Your task to perform on an android device: Open Google Maps and go to "Timeline" Image 0: 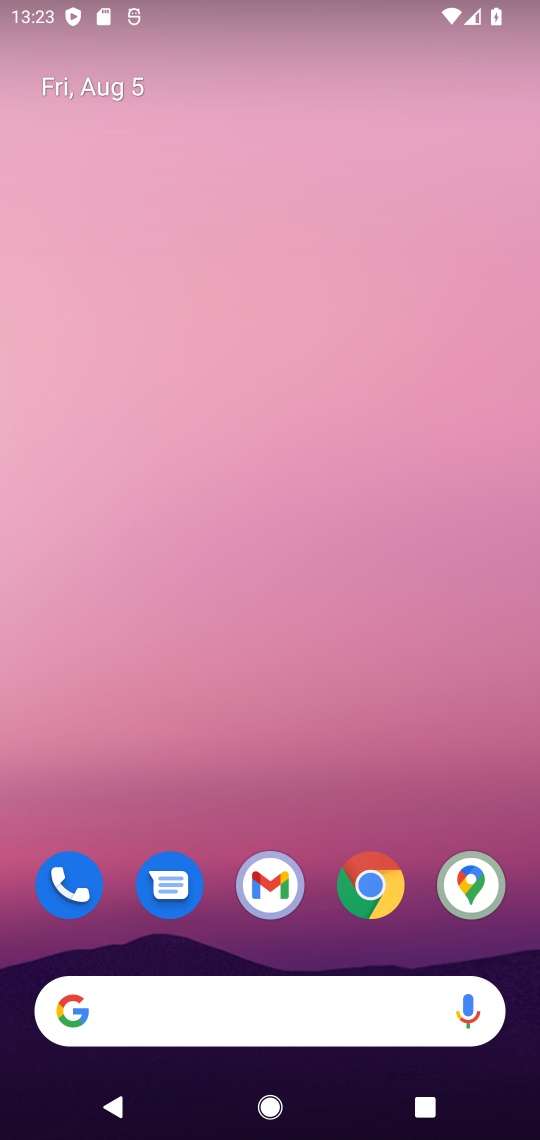
Step 0: click (236, 991)
Your task to perform on an android device: Open Google Maps and go to "Timeline" Image 1: 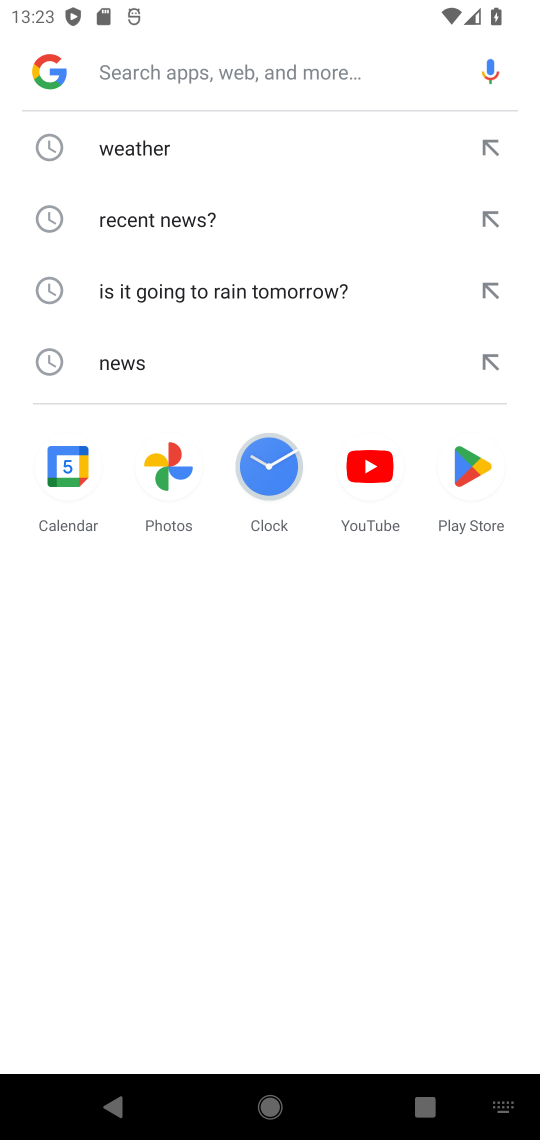
Step 1: press back button
Your task to perform on an android device: Open Google Maps and go to "Timeline" Image 2: 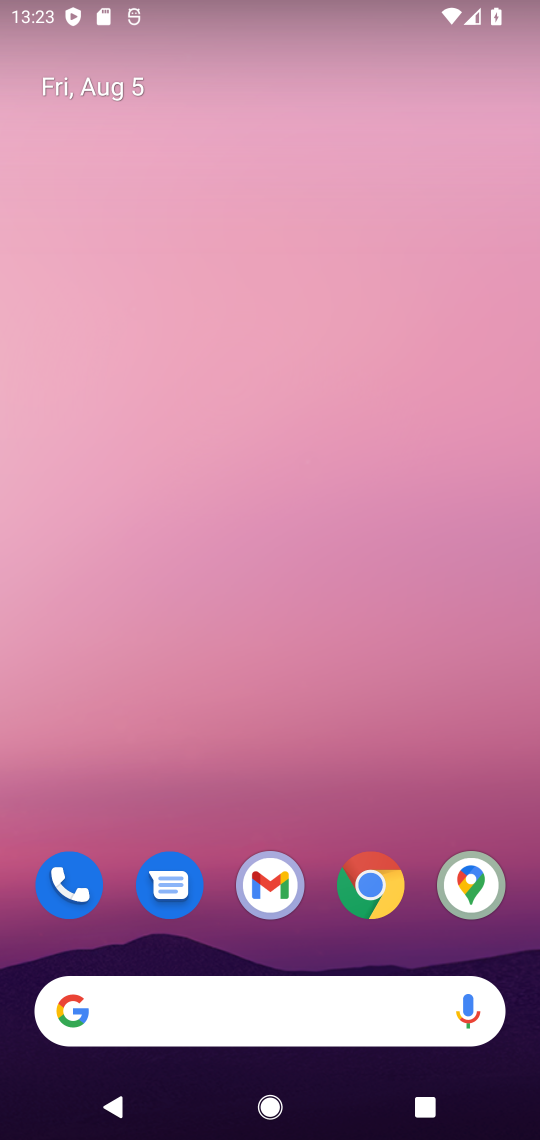
Step 2: click (474, 890)
Your task to perform on an android device: Open Google Maps and go to "Timeline" Image 3: 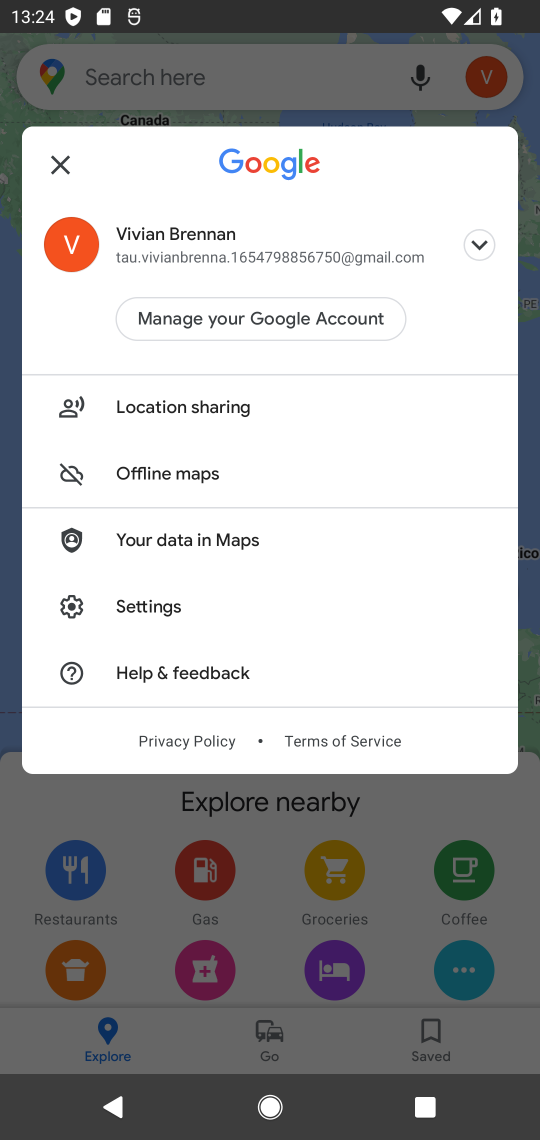
Step 3: press back button
Your task to perform on an android device: Open Google Maps and go to "Timeline" Image 4: 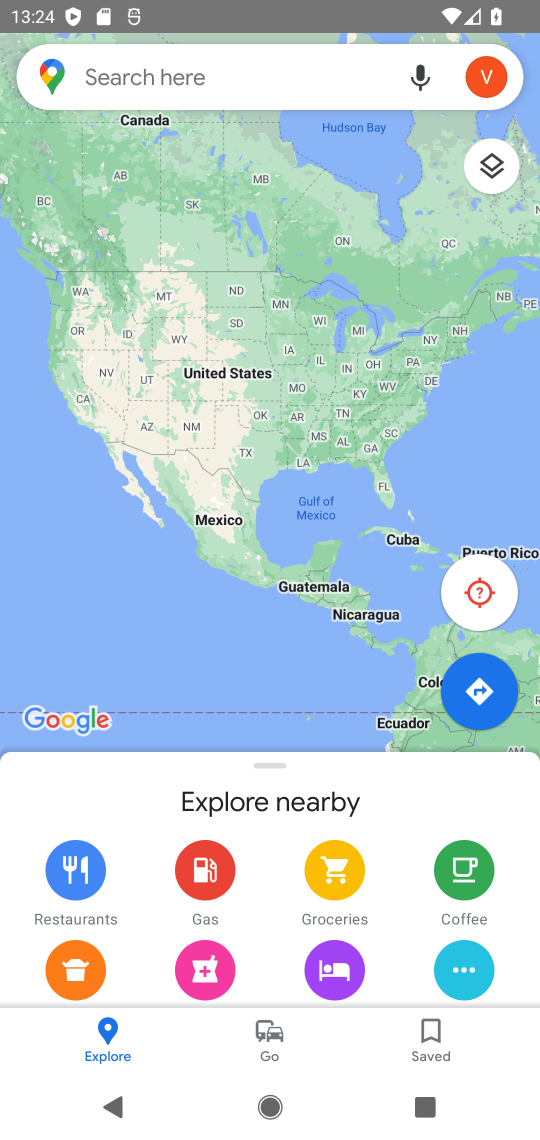
Step 4: click (492, 86)
Your task to perform on an android device: Open Google Maps and go to "Timeline" Image 5: 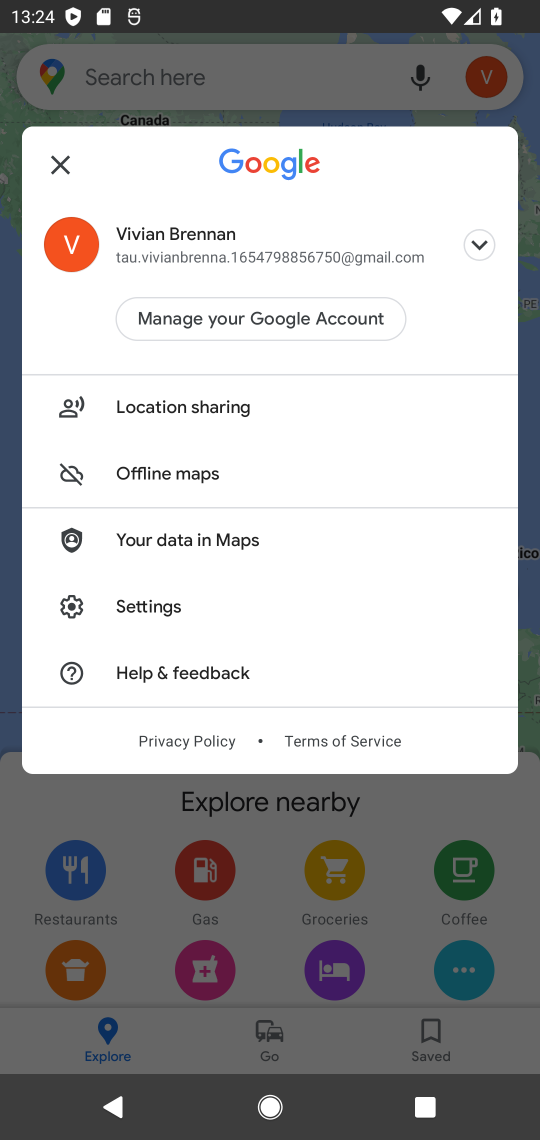
Step 5: task complete